Your task to perform on an android device: Show me recent news Image 0: 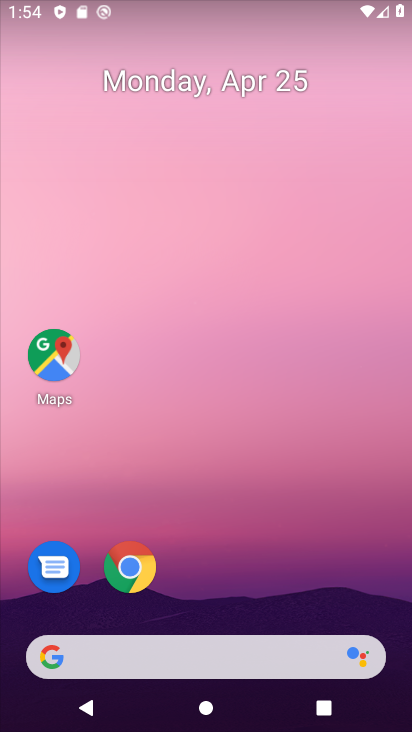
Step 0: click (131, 581)
Your task to perform on an android device: Show me recent news Image 1: 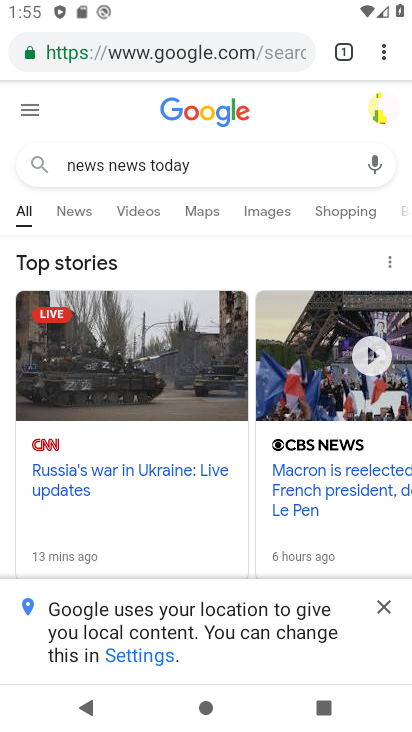
Step 1: click (297, 174)
Your task to perform on an android device: Show me recent news Image 2: 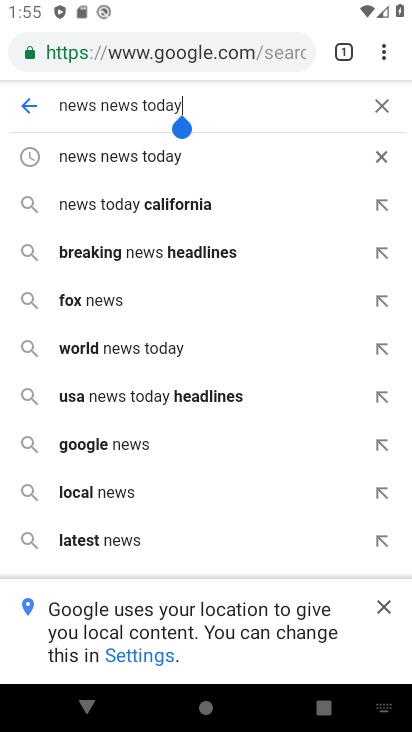
Step 2: click (381, 109)
Your task to perform on an android device: Show me recent news Image 3: 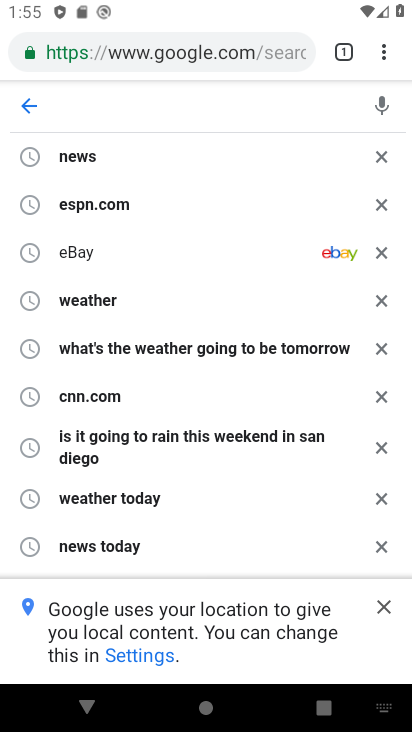
Step 3: type "recent news"
Your task to perform on an android device: Show me recent news Image 4: 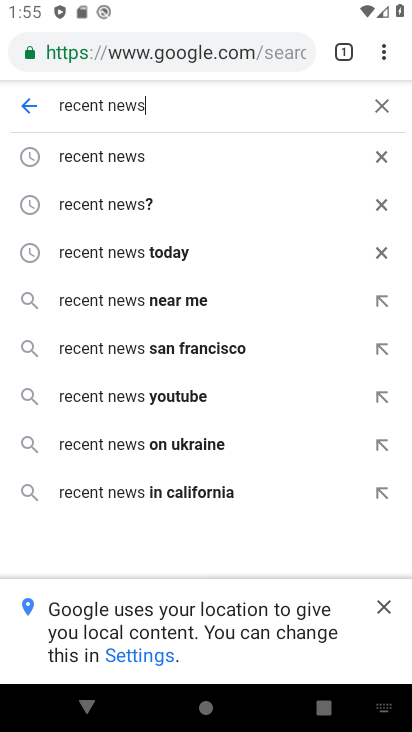
Step 4: click (166, 157)
Your task to perform on an android device: Show me recent news Image 5: 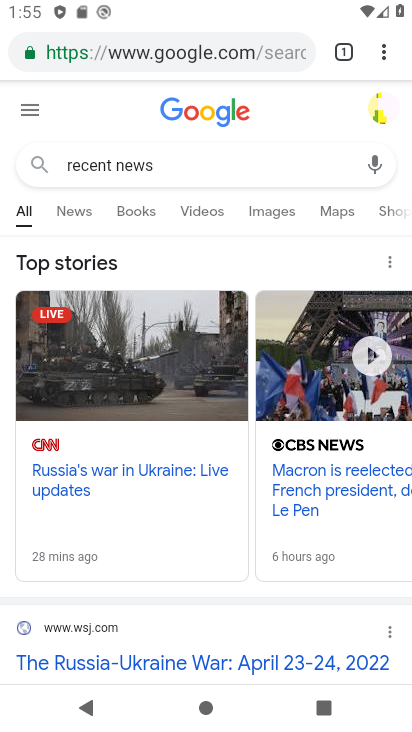
Step 5: task complete